Your task to perform on an android device: Clear the shopping cart on bestbuy.com. Image 0: 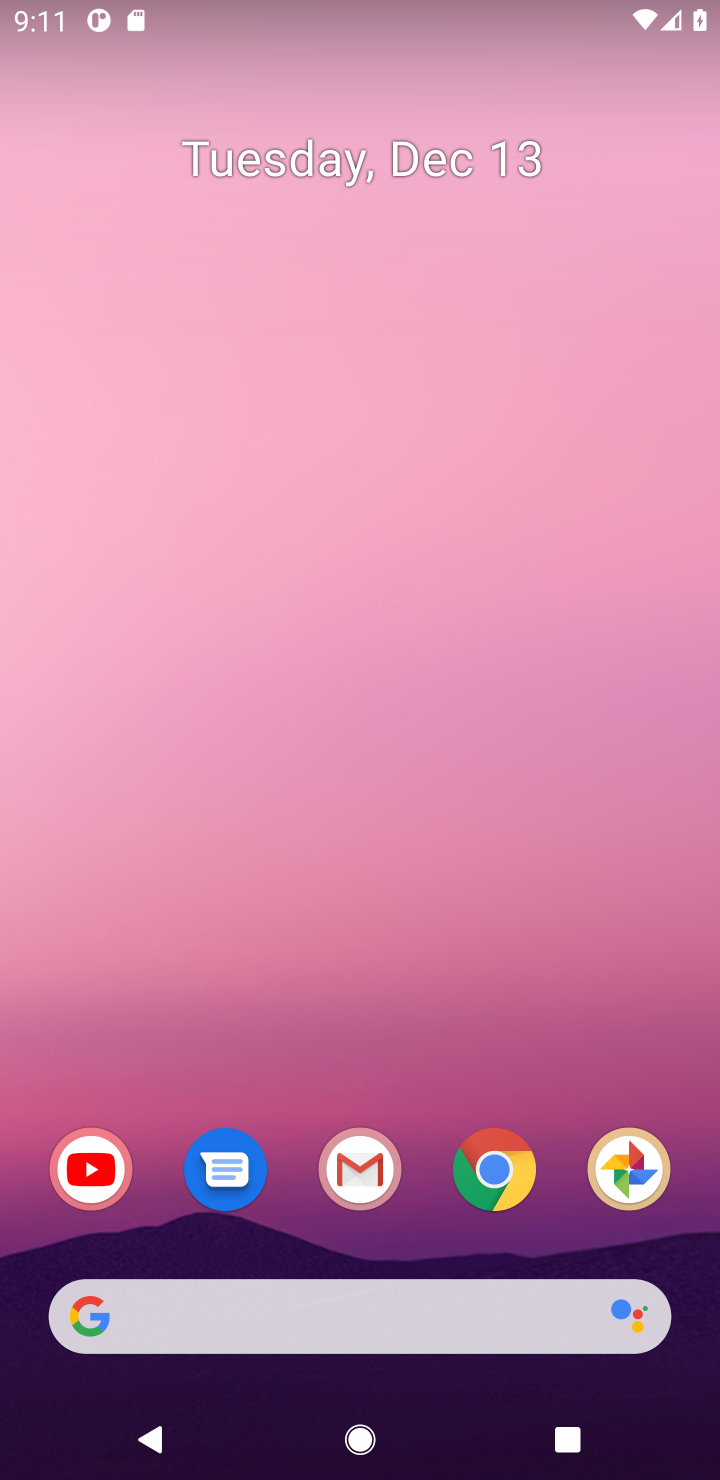
Step 0: click (486, 1130)
Your task to perform on an android device: Clear the shopping cart on bestbuy.com. Image 1: 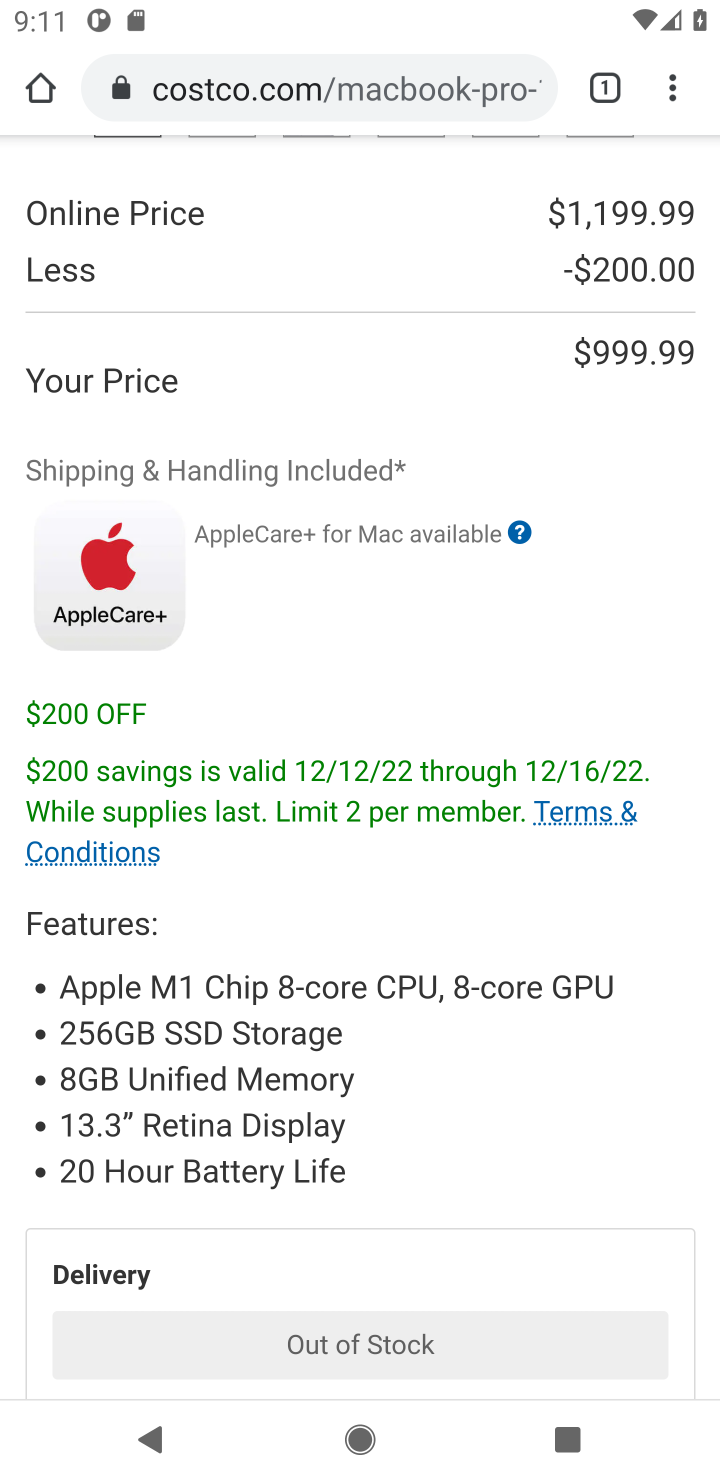
Step 1: click (277, 108)
Your task to perform on an android device: Clear the shopping cart on bestbuy.com. Image 2: 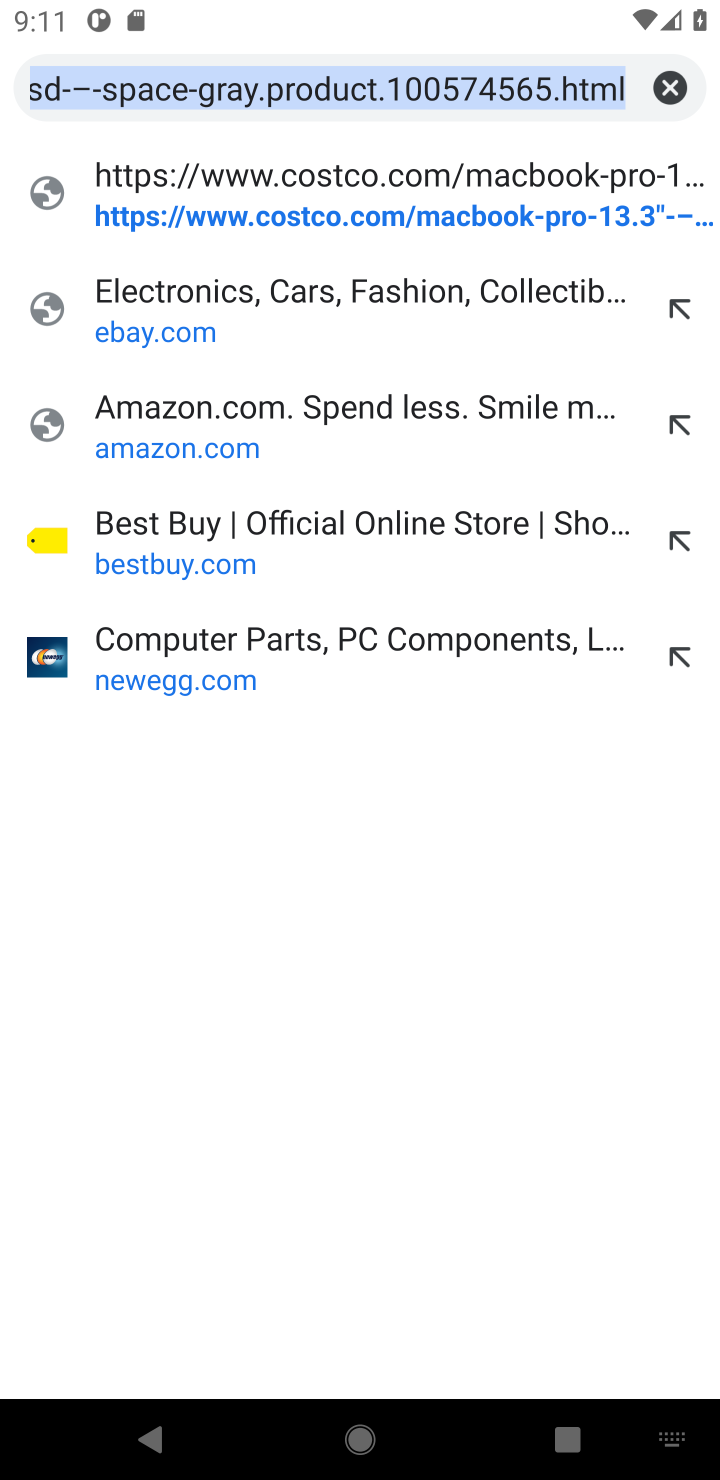
Step 2: type "bestbuy"
Your task to perform on an android device: Clear the shopping cart on bestbuy.com. Image 3: 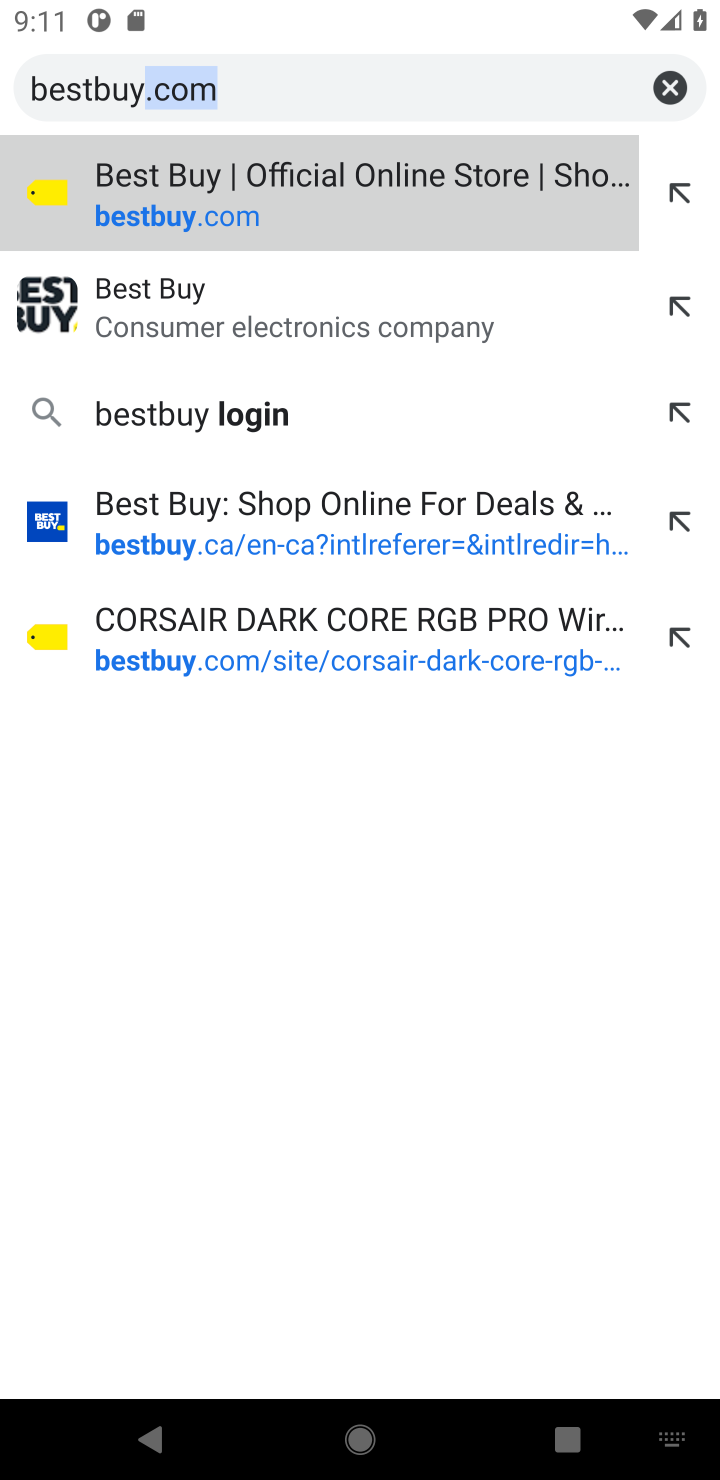
Step 3: click (283, 209)
Your task to perform on an android device: Clear the shopping cart on bestbuy.com. Image 4: 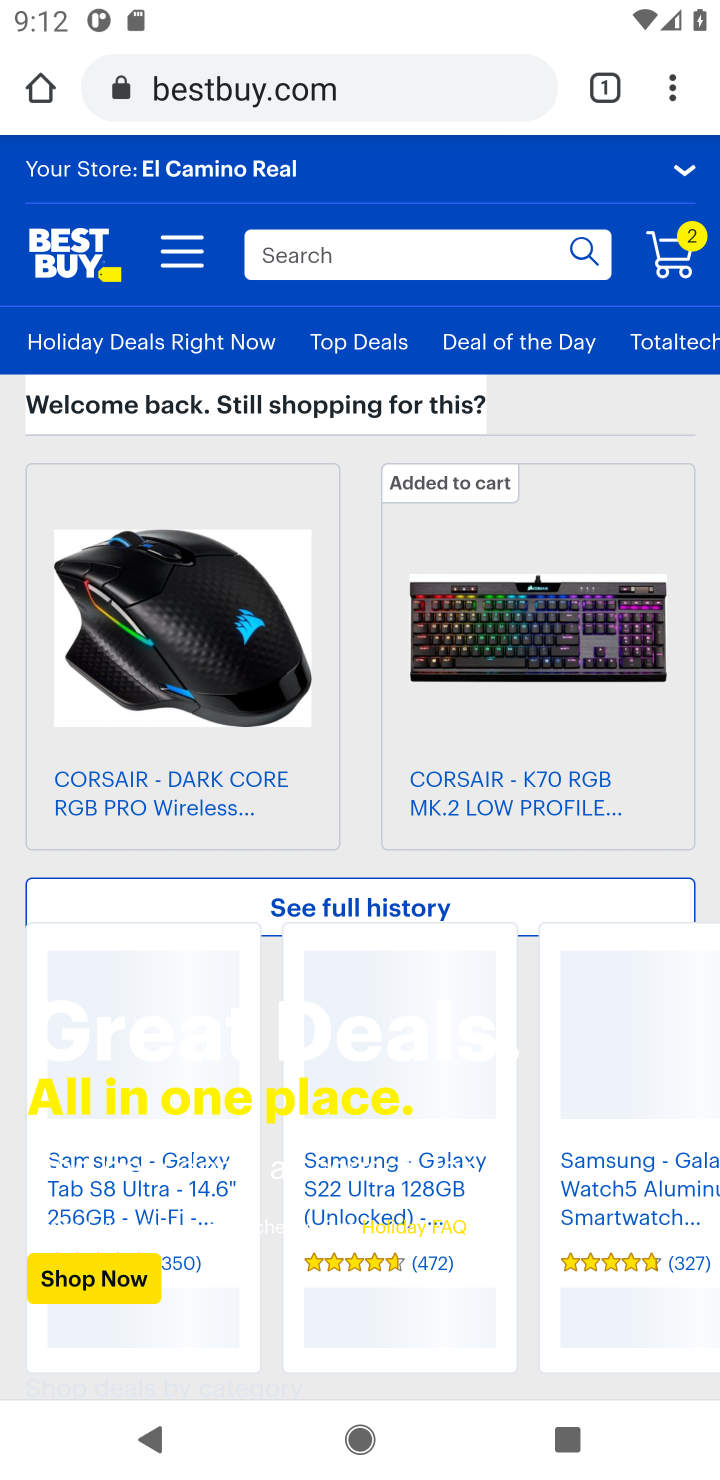
Step 4: click (687, 245)
Your task to perform on an android device: Clear the shopping cart on bestbuy.com. Image 5: 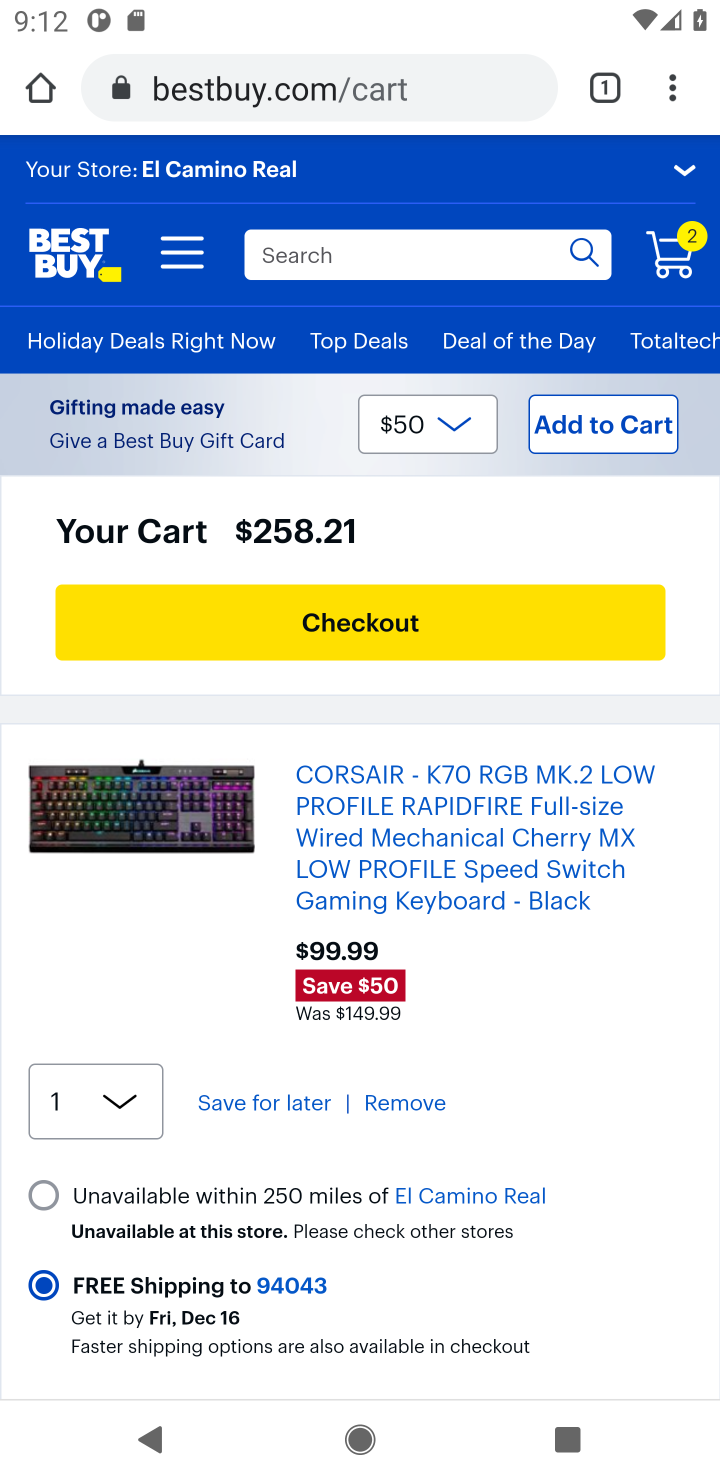
Step 5: click (422, 1107)
Your task to perform on an android device: Clear the shopping cart on bestbuy.com. Image 6: 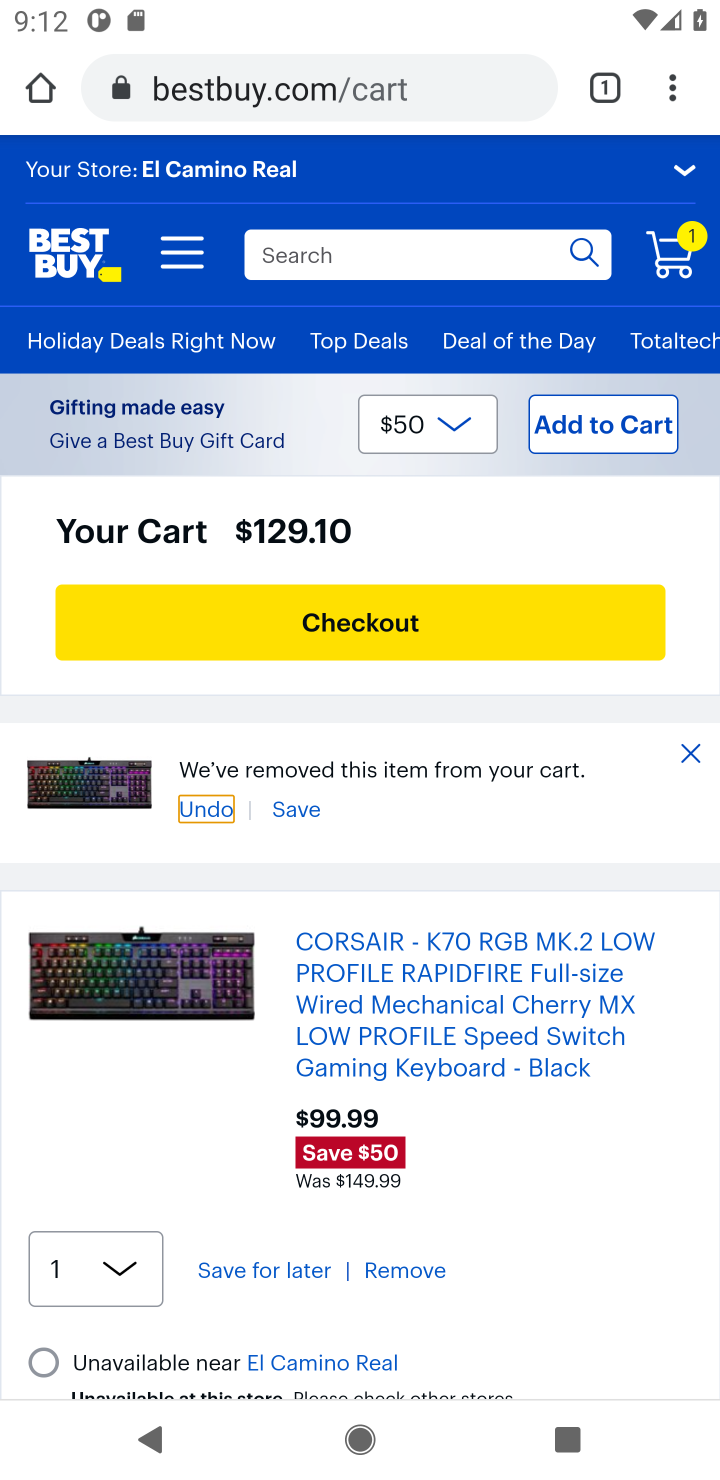
Step 6: click (406, 1273)
Your task to perform on an android device: Clear the shopping cart on bestbuy.com. Image 7: 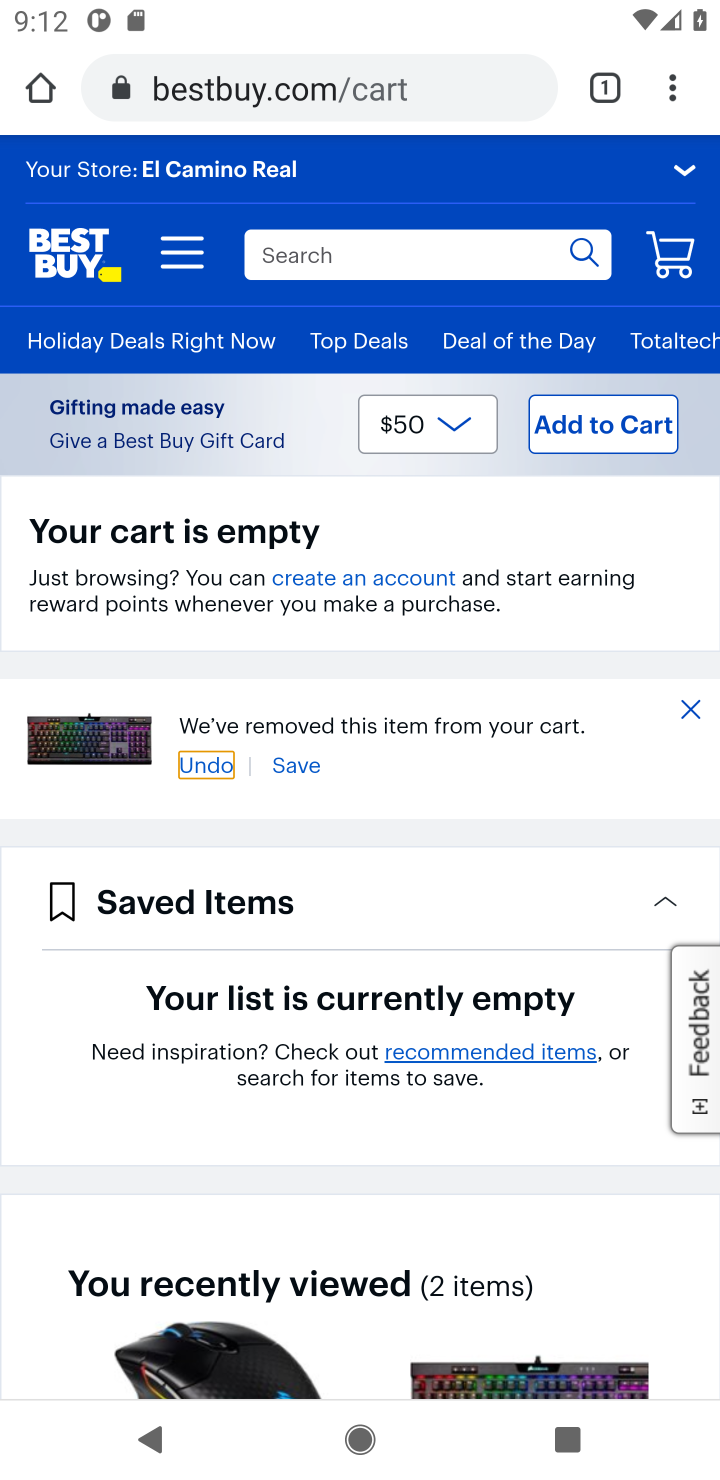
Step 7: click (691, 715)
Your task to perform on an android device: Clear the shopping cart on bestbuy.com. Image 8: 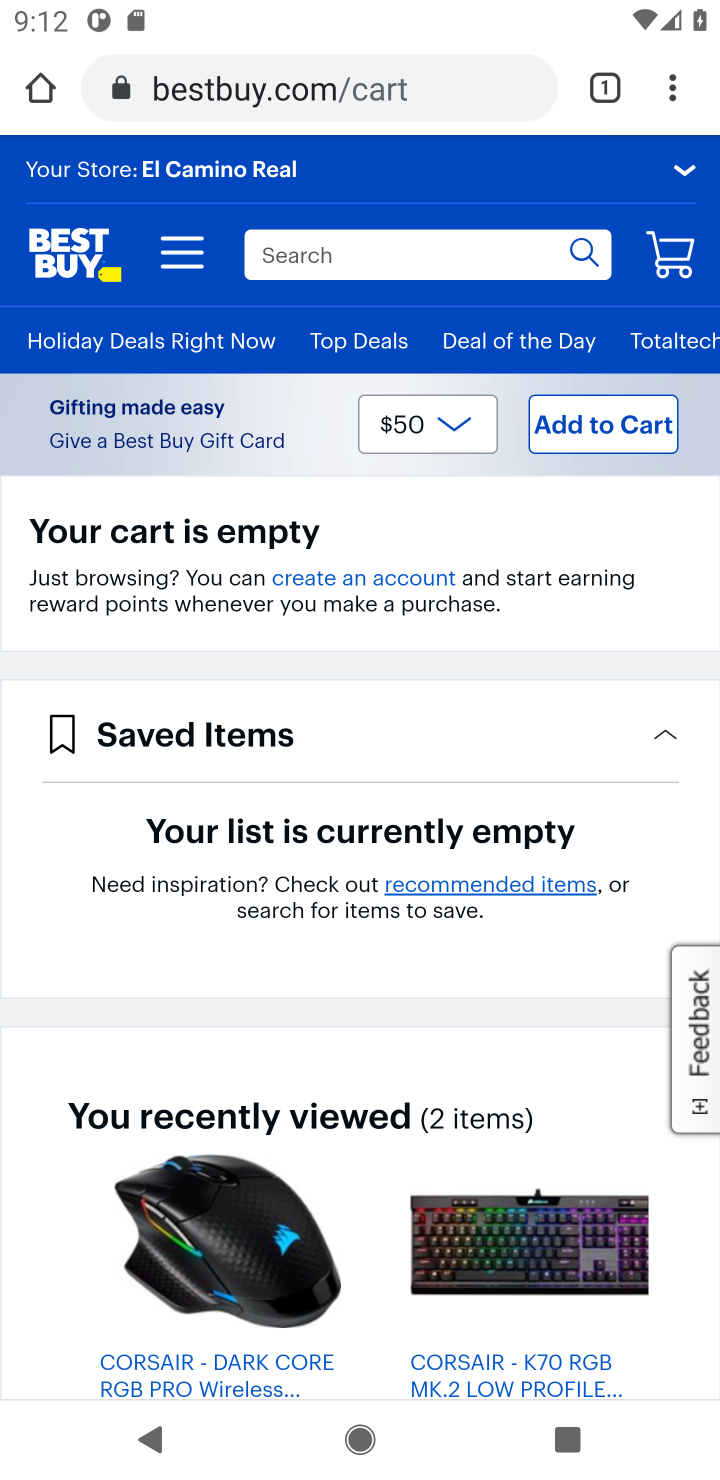
Step 8: task complete